Your task to perform on an android device: Search for Italian restaurants on Maps Image 0: 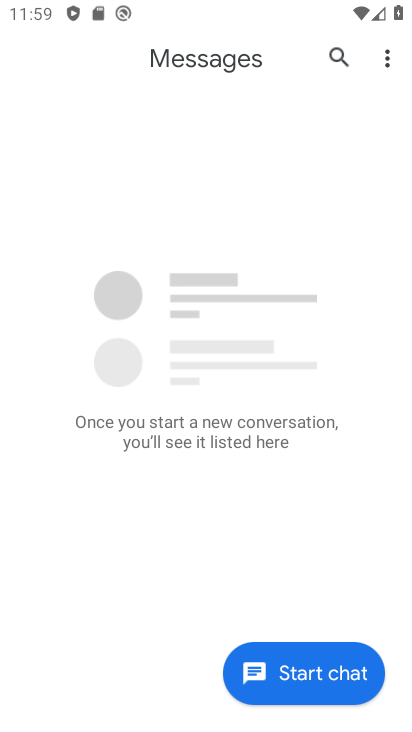
Step 0: press home button
Your task to perform on an android device: Search for Italian restaurants on Maps Image 1: 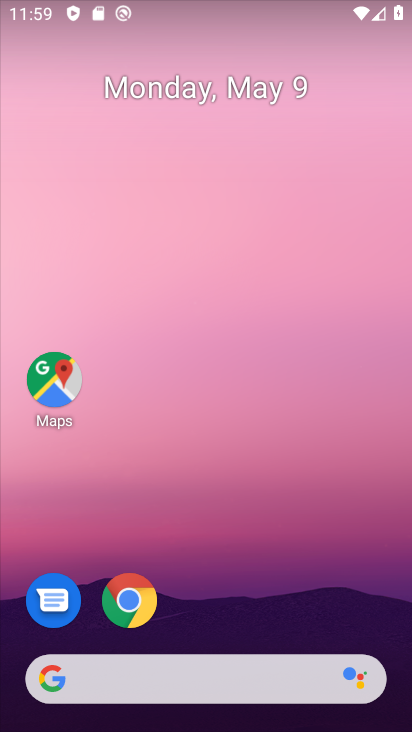
Step 1: click (62, 399)
Your task to perform on an android device: Search for Italian restaurants on Maps Image 2: 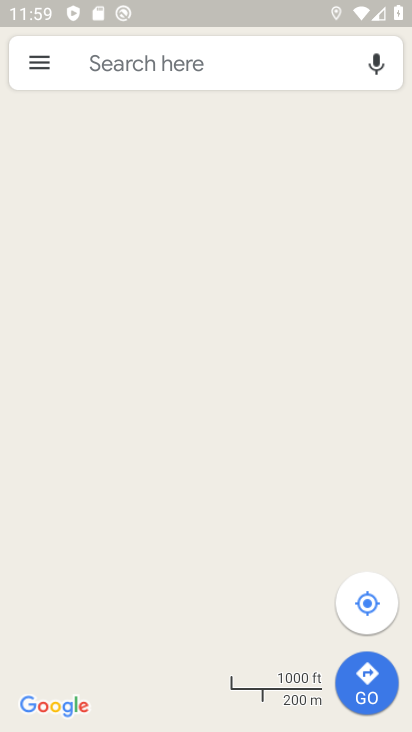
Step 2: click (151, 68)
Your task to perform on an android device: Search for Italian restaurants on Maps Image 3: 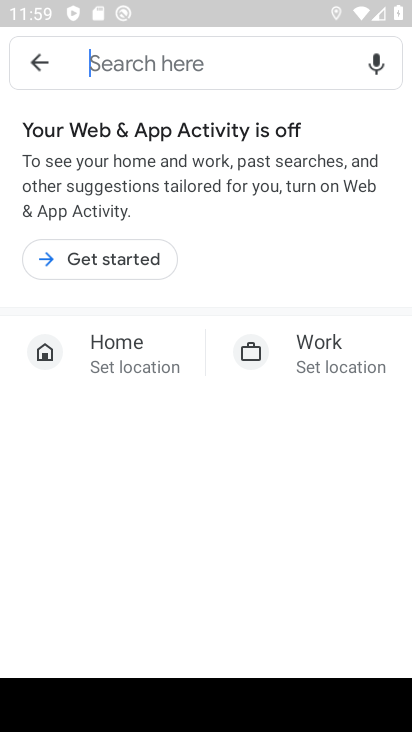
Step 3: type "Italian restaurants"
Your task to perform on an android device: Search for Italian restaurants on Maps Image 4: 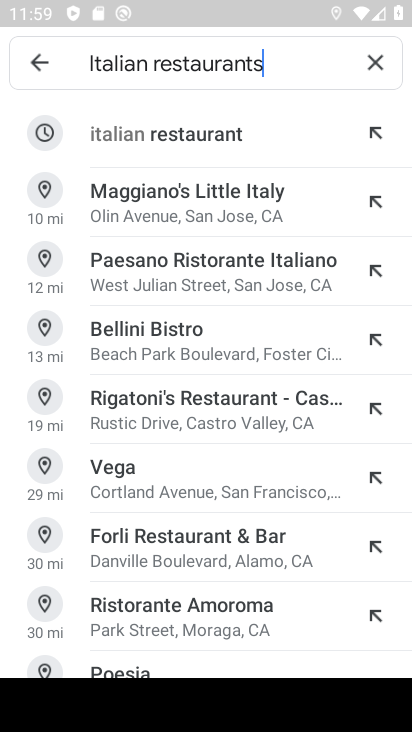
Step 4: click (216, 124)
Your task to perform on an android device: Search for Italian restaurants on Maps Image 5: 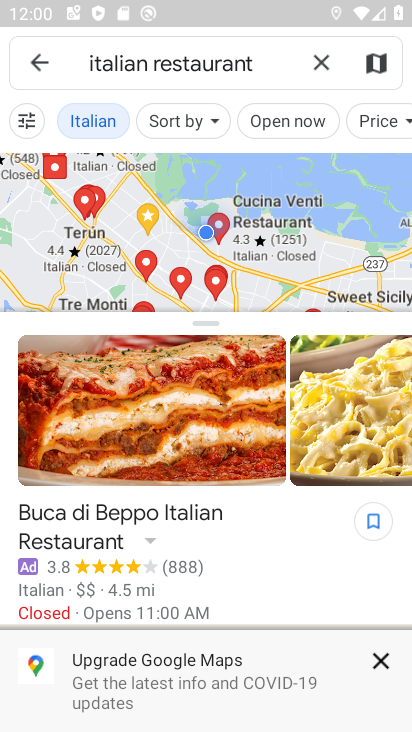
Step 5: task complete